Your task to perform on an android device: see tabs open on other devices in the chrome app Image 0: 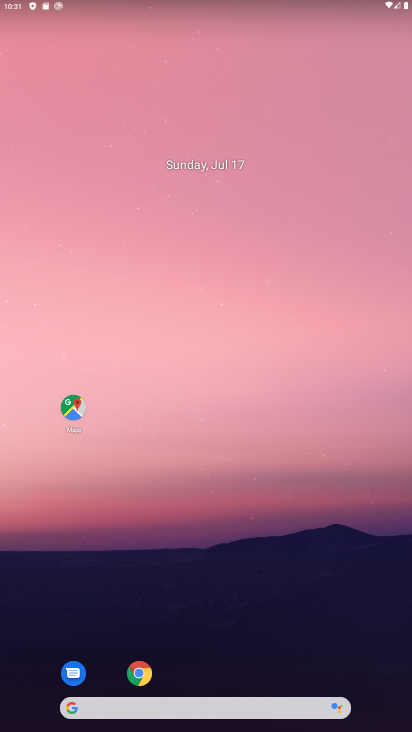
Step 0: drag from (211, 677) to (200, 128)
Your task to perform on an android device: see tabs open on other devices in the chrome app Image 1: 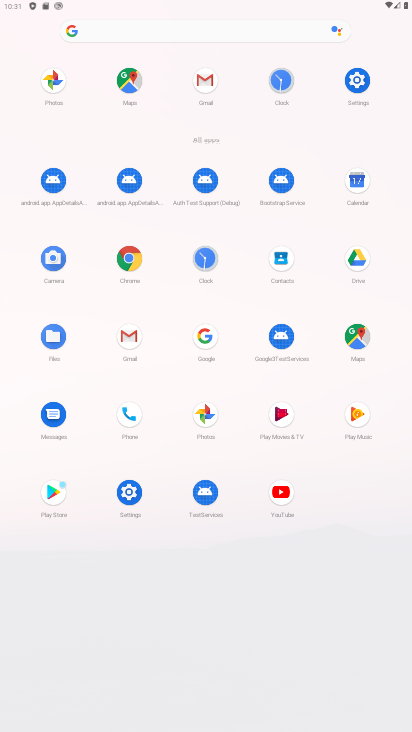
Step 1: click (130, 257)
Your task to perform on an android device: see tabs open on other devices in the chrome app Image 2: 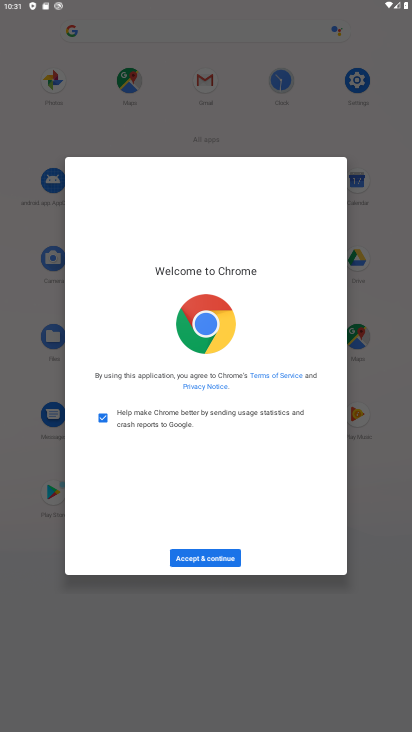
Step 2: click (214, 554)
Your task to perform on an android device: see tabs open on other devices in the chrome app Image 3: 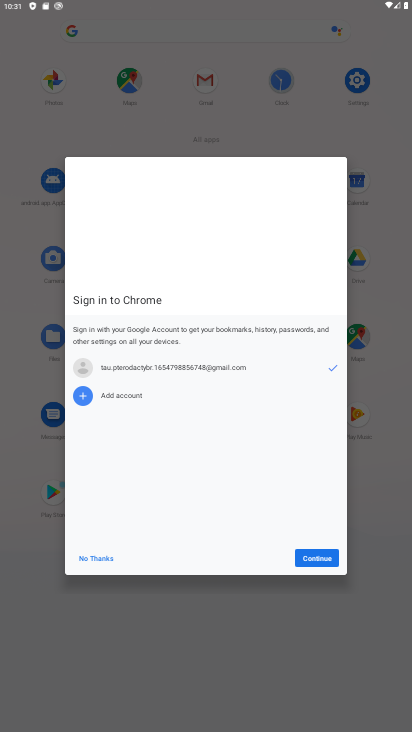
Step 3: click (313, 562)
Your task to perform on an android device: see tabs open on other devices in the chrome app Image 4: 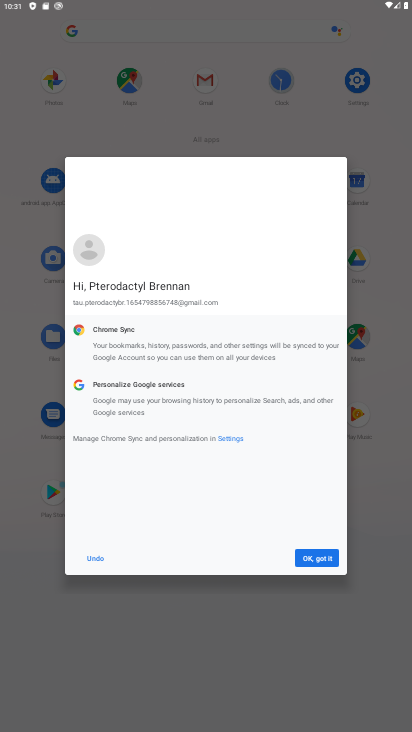
Step 4: click (312, 556)
Your task to perform on an android device: see tabs open on other devices in the chrome app Image 5: 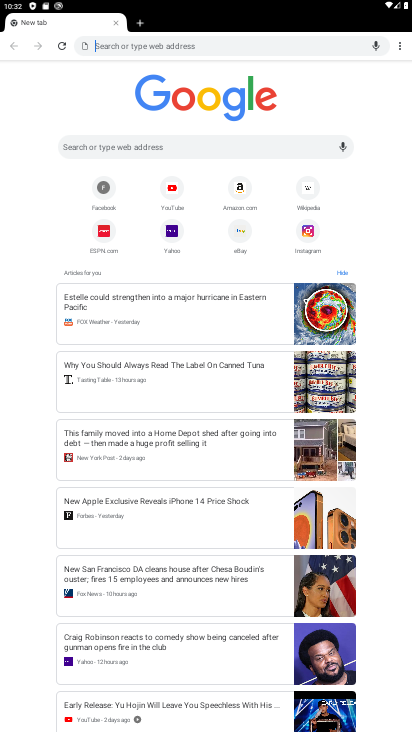
Step 5: click (397, 48)
Your task to perform on an android device: see tabs open on other devices in the chrome app Image 6: 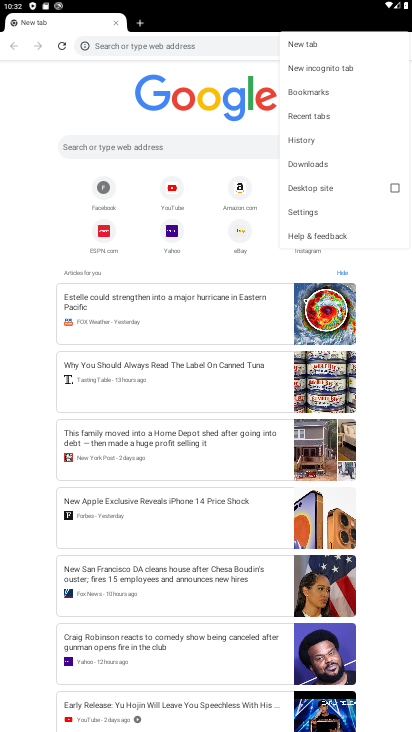
Step 6: click (307, 112)
Your task to perform on an android device: see tabs open on other devices in the chrome app Image 7: 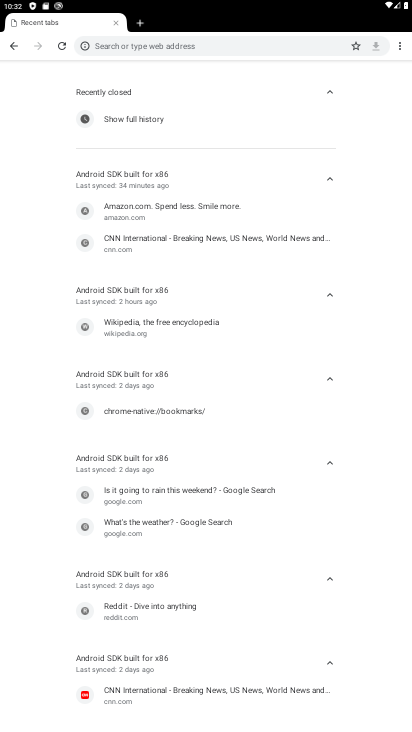
Step 7: task complete